Your task to perform on an android device: Open the map Image 0: 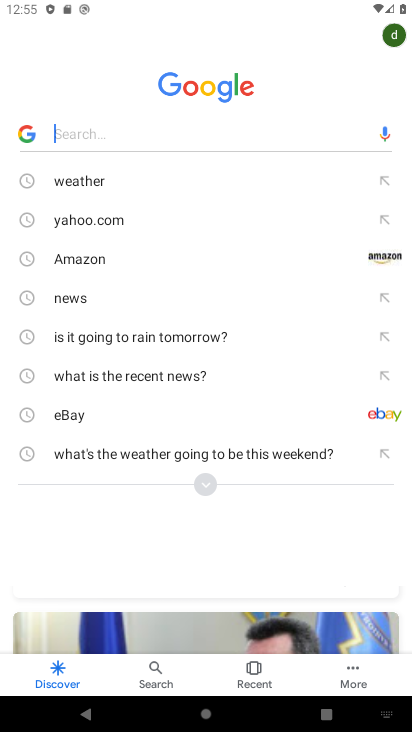
Step 0: press back button
Your task to perform on an android device: Open the map Image 1: 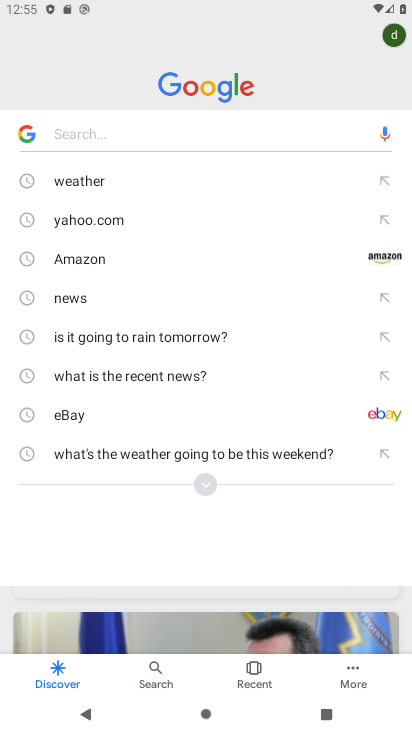
Step 1: press back button
Your task to perform on an android device: Open the map Image 2: 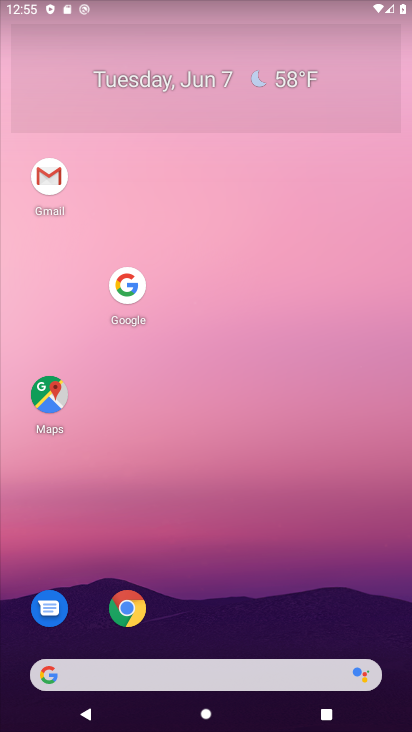
Step 2: click (55, 397)
Your task to perform on an android device: Open the map Image 3: 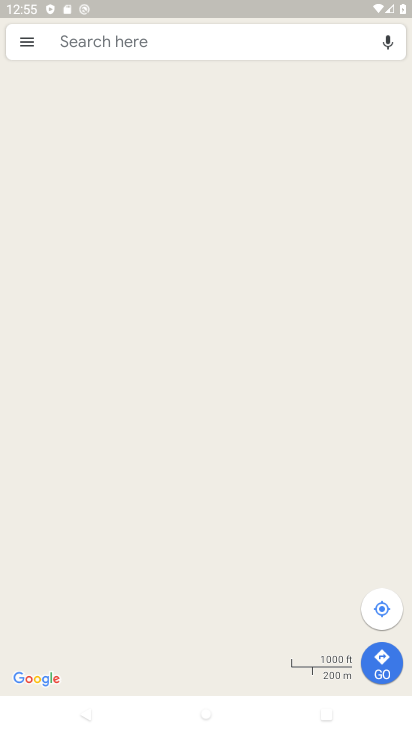
Step 3: task complete